Your task to perform on an android device: Open settings Image 0: 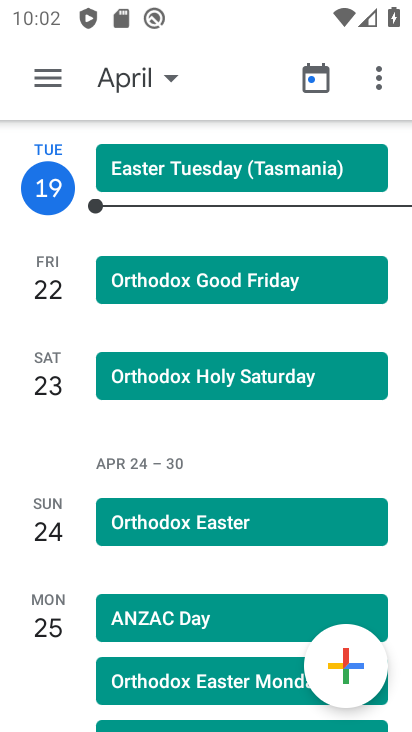
Step 0: press home button
Your task to perform on an android device: Open settings Image 1: 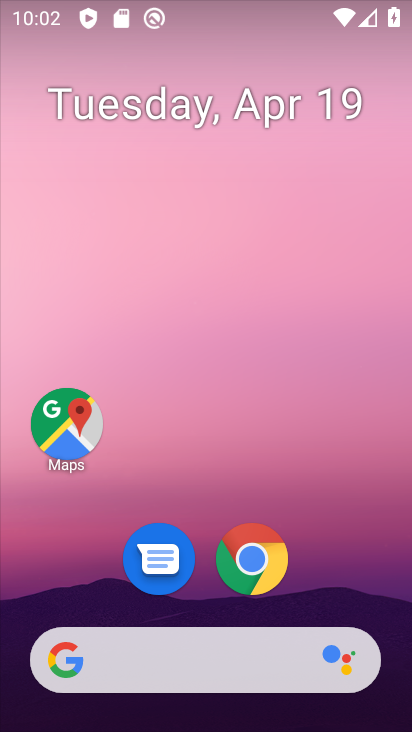
Step 1: drag from (327, 559) to (382, 37)
Your task to perform on an android device: Open settings Image 2: 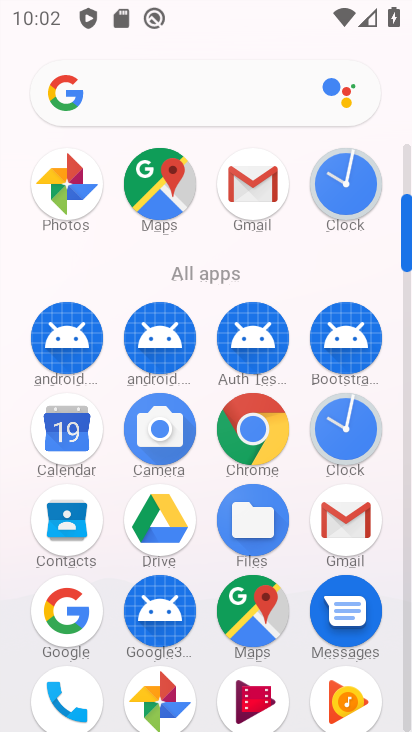
Step 2: drag from (397, 443) to (409, 214)
Your task to perform on an android device: Open settings Image 3: 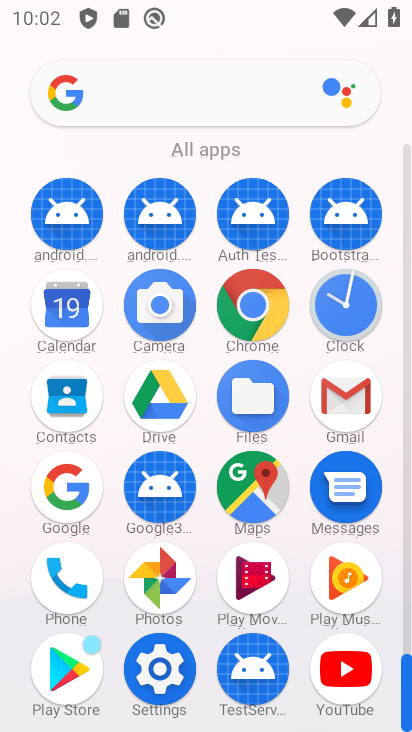
Step 3: click (162, 677)
Your task to perform on an android device: Open settings Image 4: 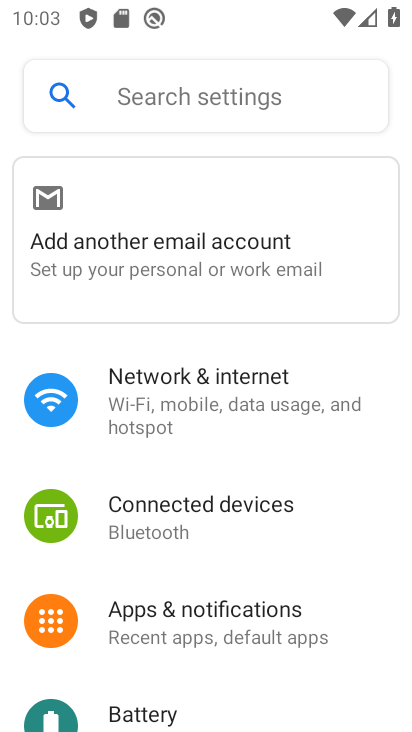
Step 4: task complete